Your task to perform on an android device: Check the news Image 0: 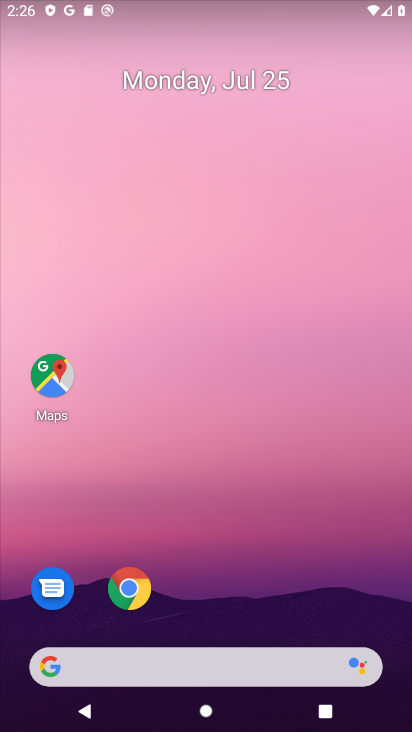
Step 0: press home button
Your task to perform on an android device: Check the news Image 1: 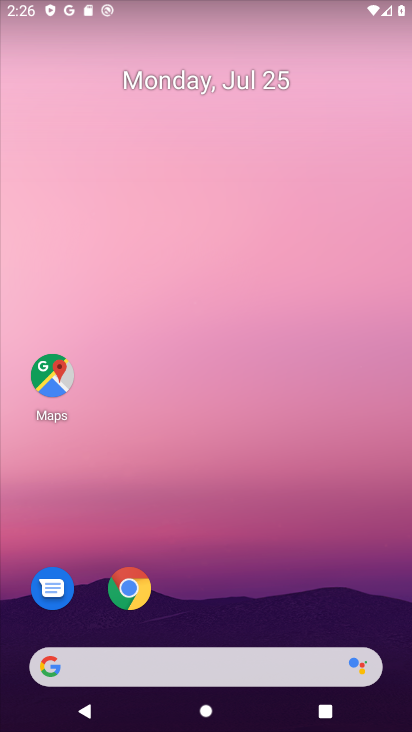
Step 1: task complete